Your task to perform on an android device: turn on airplane mode Image 0: 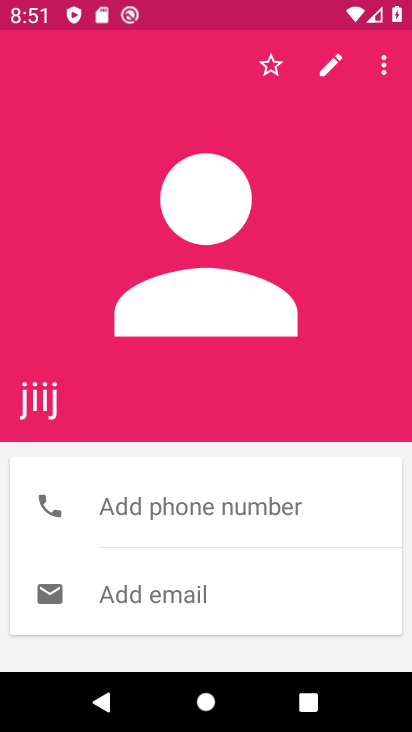
Step 0: press home button
Your task to perform on an android device: turn on airplane mode Image 1: 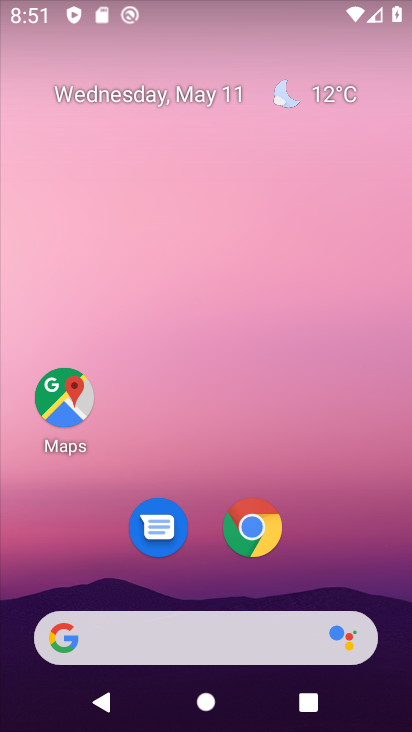
Step 1: drag from (278, 10) to (250, 616)
Your task to perform on an android device: turn on airplane mode Image 2: 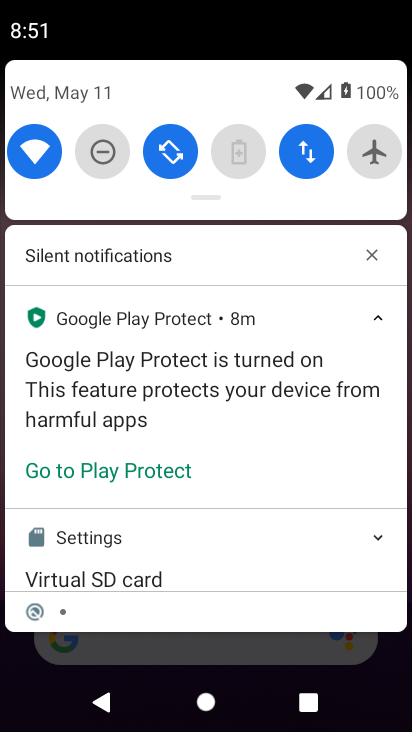
Step 2: click (385, 142)
Your task to perform on an android device: turn on airplane mode Image 3: 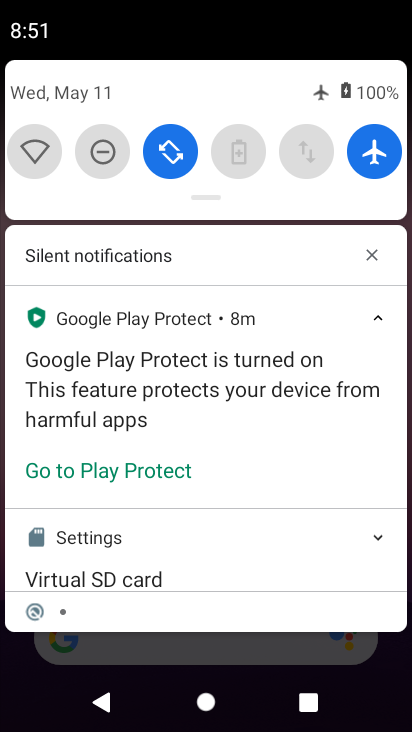
Step 3: task complete